Your task to perform on an android device: Open location settings Image 0: 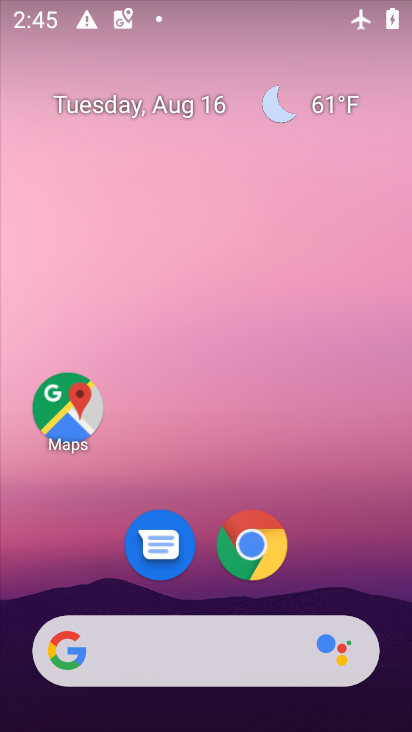
Step 0: drag from (230, 620) to (191, 298)
Your task to perform on an android device: Open location settings Image 1: 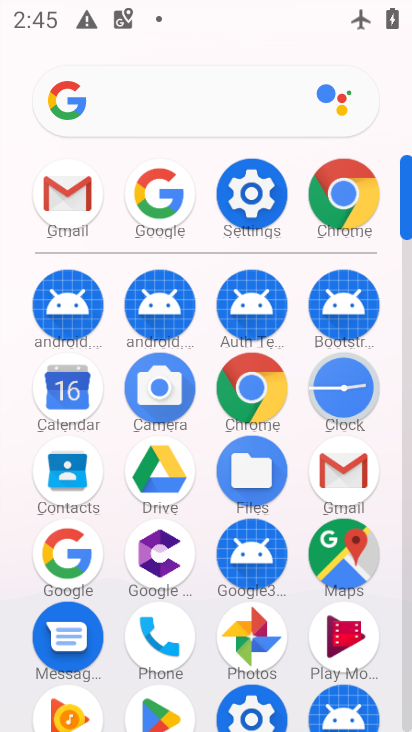
Step 1: click (230, 188)
Your task to perform on an android device: Open location settings Image 2: 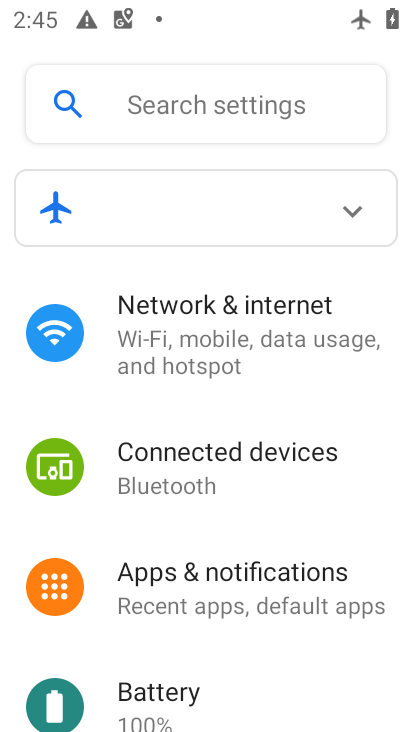
Step 2: drag from (191, 656) to (198, 240)
Your task to perform on an android device: Open location settings Image 3: 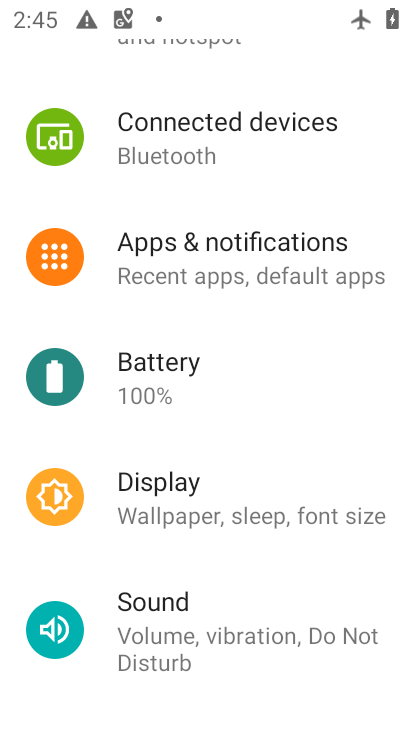
Step 3: drag from (237, 578) to (232, 318)
Your task to perform on an android device: Open location settings Image 4: 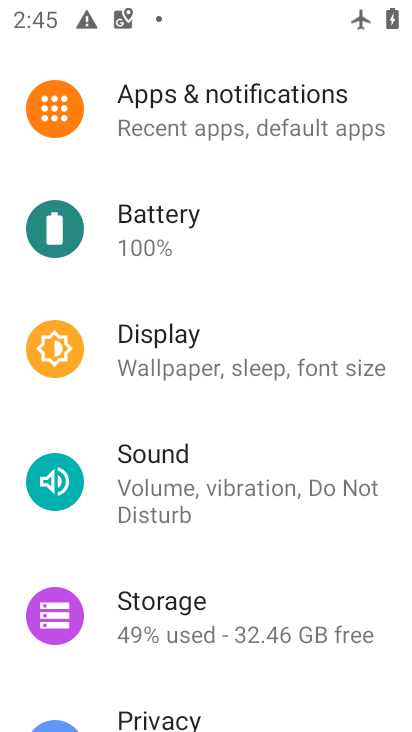
Step 4: drag from (205, 664) to (201, 258)
Your task to perform on an android device: Open location settings Image 5: 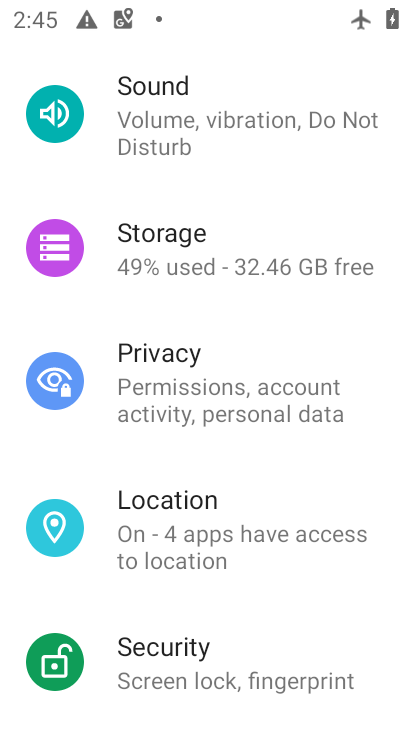
Step 5: click (181, 543)
Your task to perform on an android device: Open location settings Image 6: 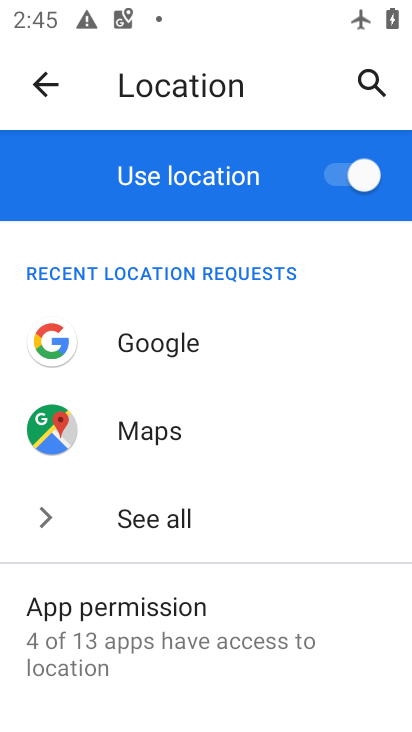
Step 6: task complete